Your task to perform on an android device: make emails show in primary in the gmail app Image 0: 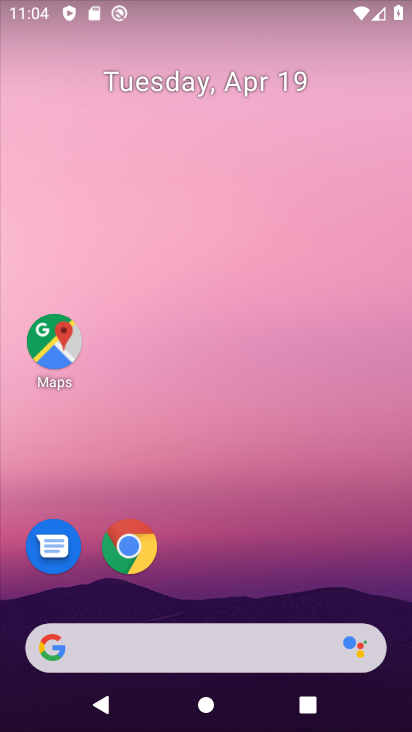
Step 0: drag from (281, 285) to (219, 45)
Your task to perform on an android device: make emails show in primary in the gmail app Image 1: 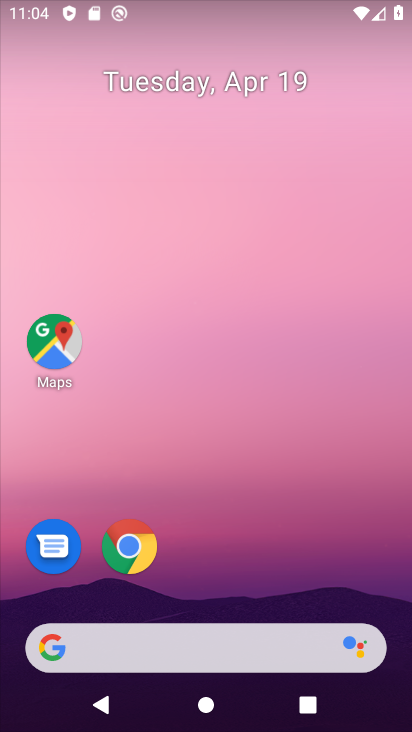
Step 1: drag from (402, 660) to (324, 2)
Your task to perform on an android device: make emails show in primary in the gmail app Image 2: 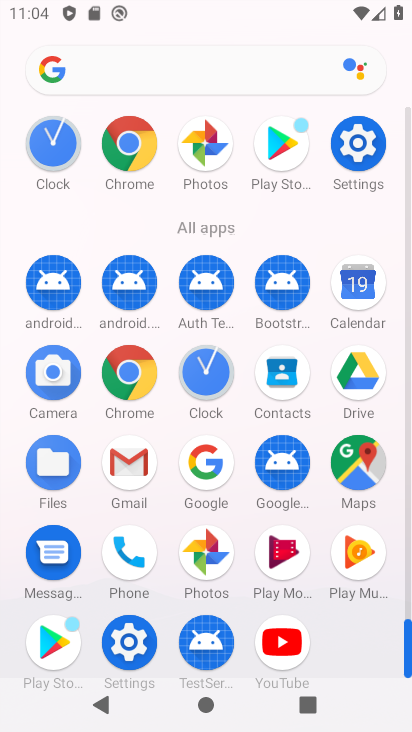
Step 2: drag from (5, 440) to (2, 277)
Your task to perform on an android device: make emails show in primary in the gmail app Image 3: 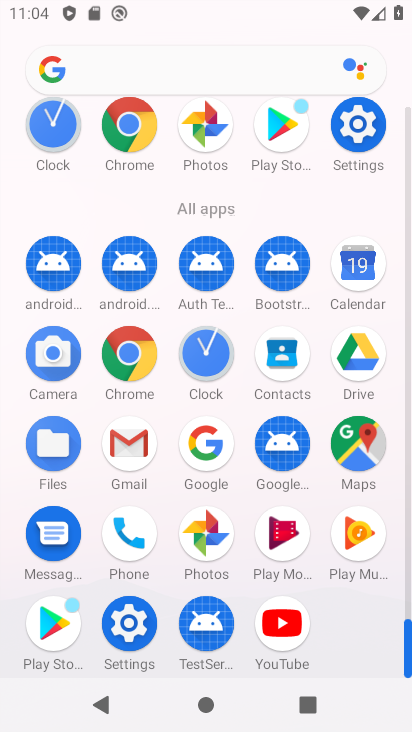
Step 3: click (128, 441)
Your task to perform on an android device: make emails show in primary in the gmail app Image 4: 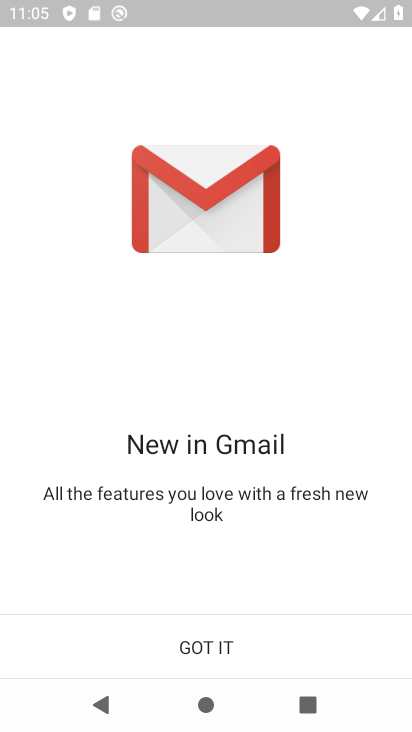
Step 4: click (153, 642)
Your task to perform on an android device: make emails show in primary in the gmail app Image 5: 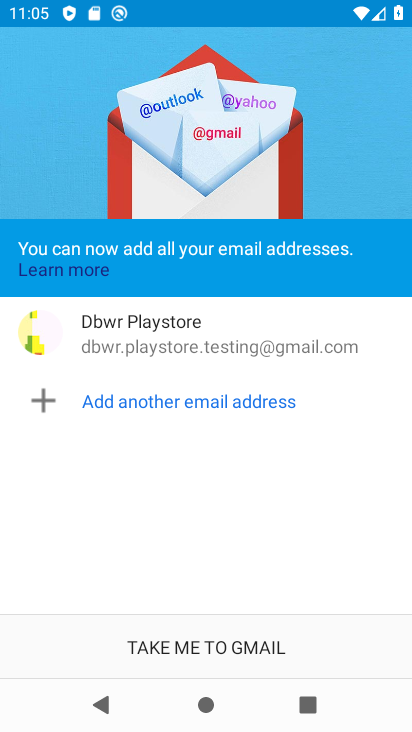
Step 5: click (153, 642)
Your task to perform on an android device: make emails show in primary in the gmail app Image 6: 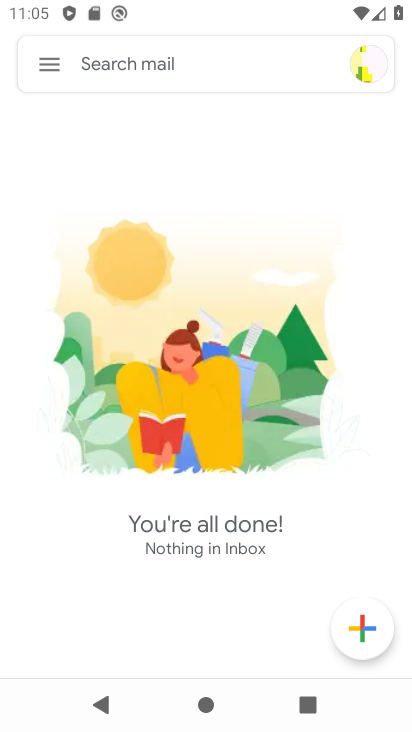
Step 6: click (52, 66)
Your task to perform on an android device: make emails show in primary in the gmail app Image 7: 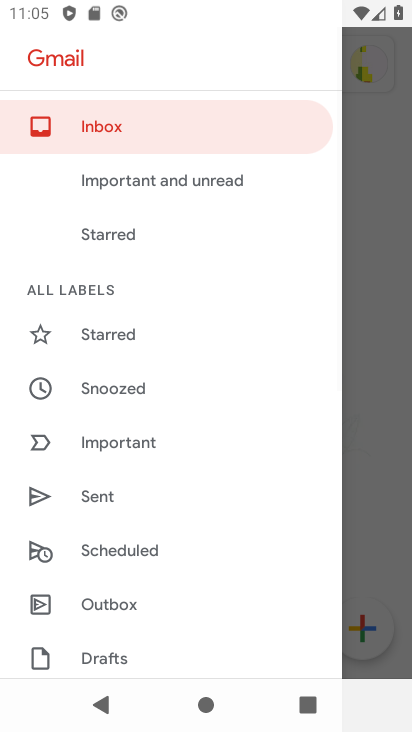
Step 7: drag from (210, 625) to (188, 167)
Your task to perform on an android device: make emails show in primary in the gmail app Image 8: 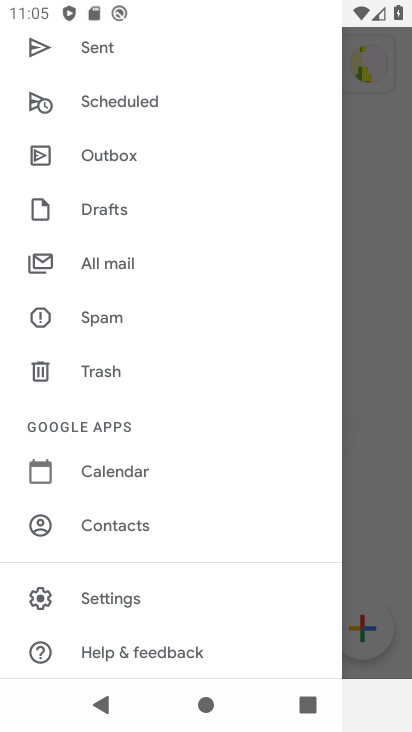
Step 8: drag from (203, 520) to (201, 162)
Your task to perform on an android device: make emails show in primary in the gmail app Image 9: 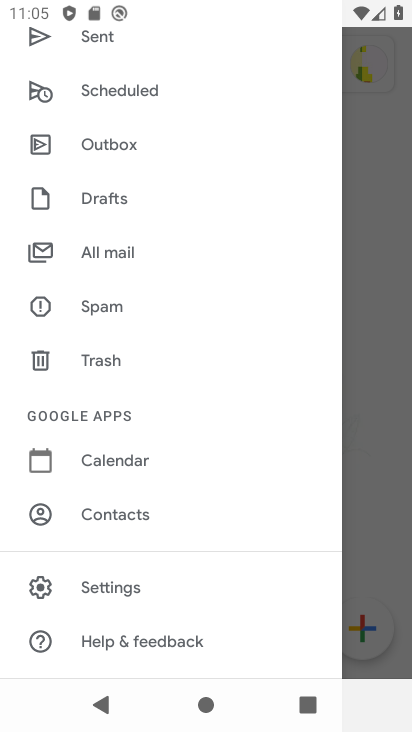
Step 9: click (128, 579)
Your task to perform on an android device: make emails show in primary in the gmail app Image 10: 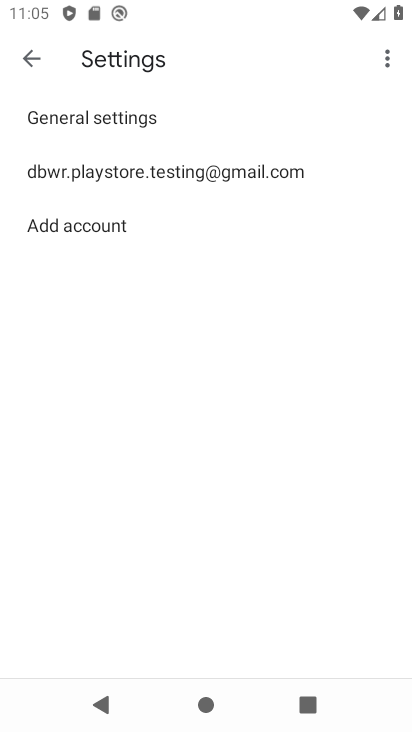
Step 10: click (163, 176)
Your task to perform on an android device: make emails show in primary in the gmail app Image 11: 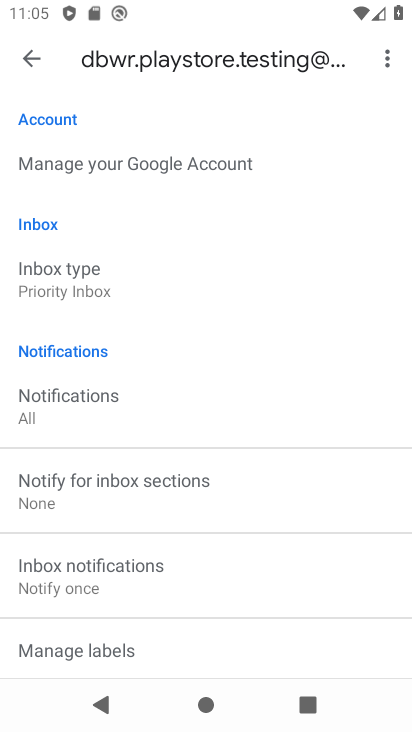
Step 11: click (99, 265)
Your task to perform on an android device: make emails show in primary in the gmail app Image 12: 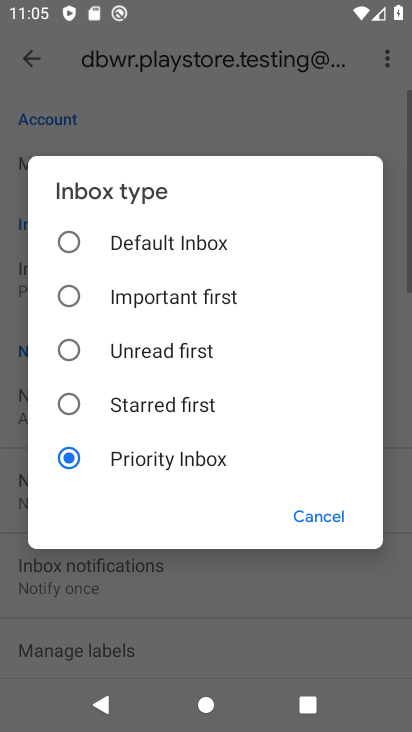
Step 12: click (119, 221)
Your task to perform on an android device: make emails show in primary in the gmail app Image 13: 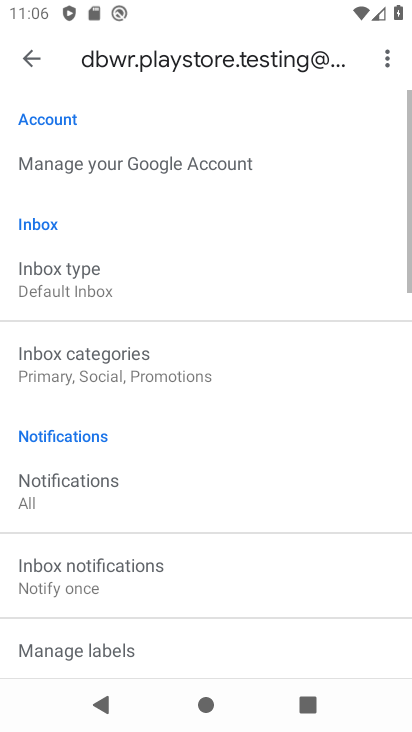
Step 13: click (150, 351)
Your task to perform on an android device: make emails show in primary in the gmail app Image 14: 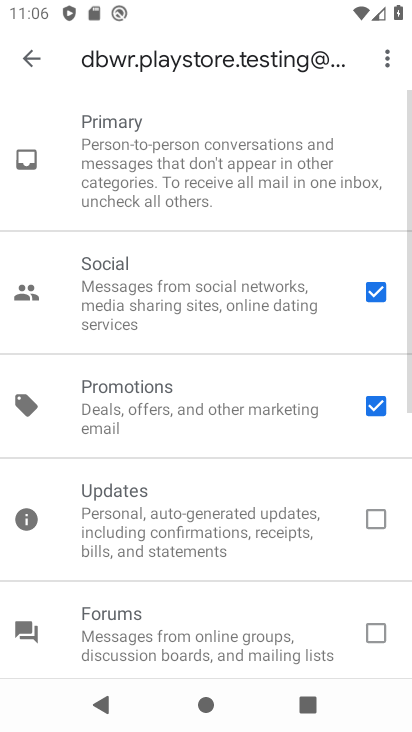
Step 14: click (376, 397)
Your task to perform on an android device: make emails show in primary in the gmail app Image 15: 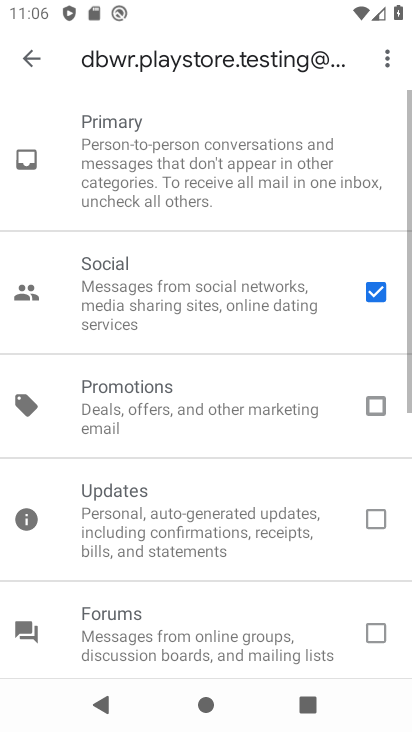
Step 15: click (370, 290)
Your task to perform on an android device: make emails show in primary in the gmail app Image 16: 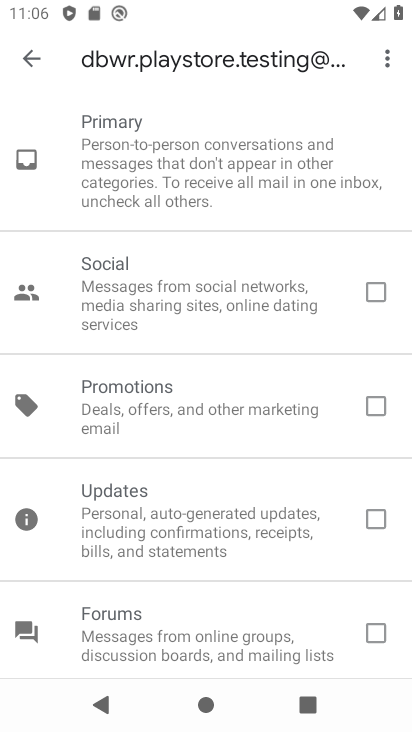
Step 16: click (21, 54)
Your task to perform on an android device: make emails show in primary in the gmail app Image 17: 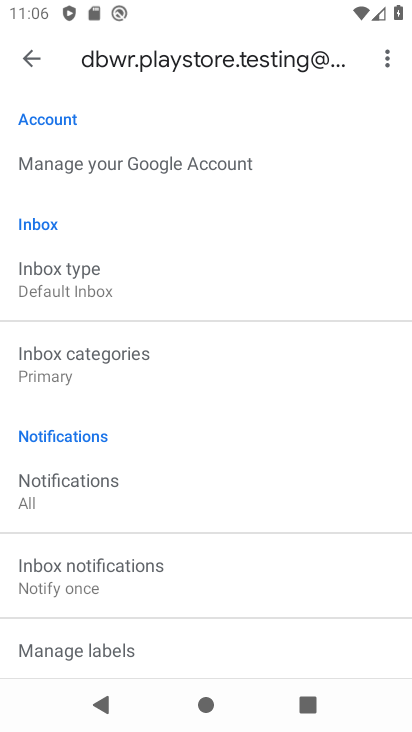
Step 17: task complete